Your task to perform on an android device: Search for seafood restaurants on Google Maps Image 0: 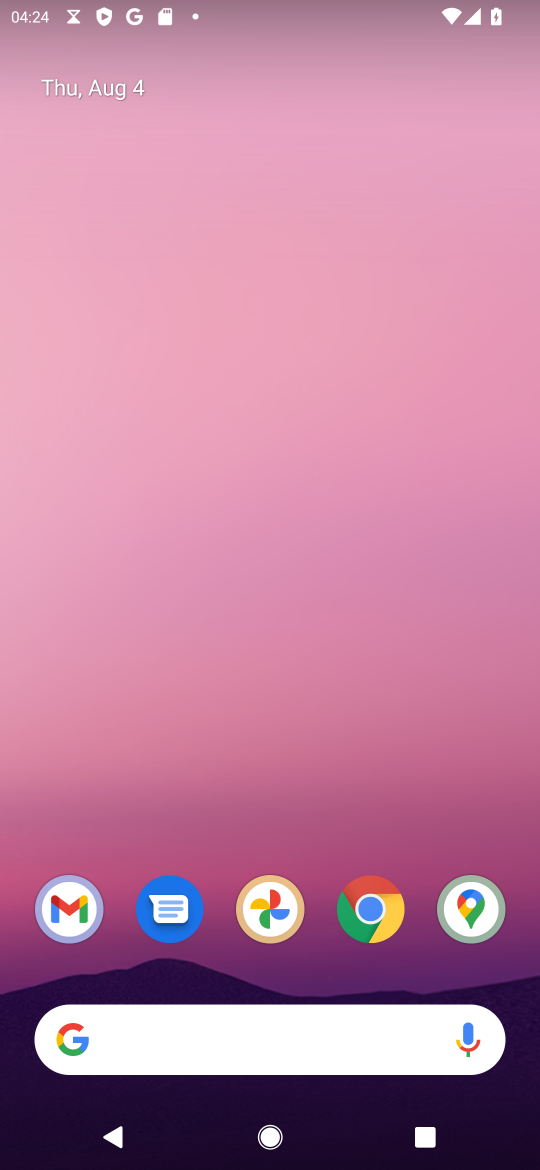
Step 0: drag from (221, 1002) to (254, 233)
Your task to perform on an android device: Search for seafood restaurants on Google Maps Image 1: 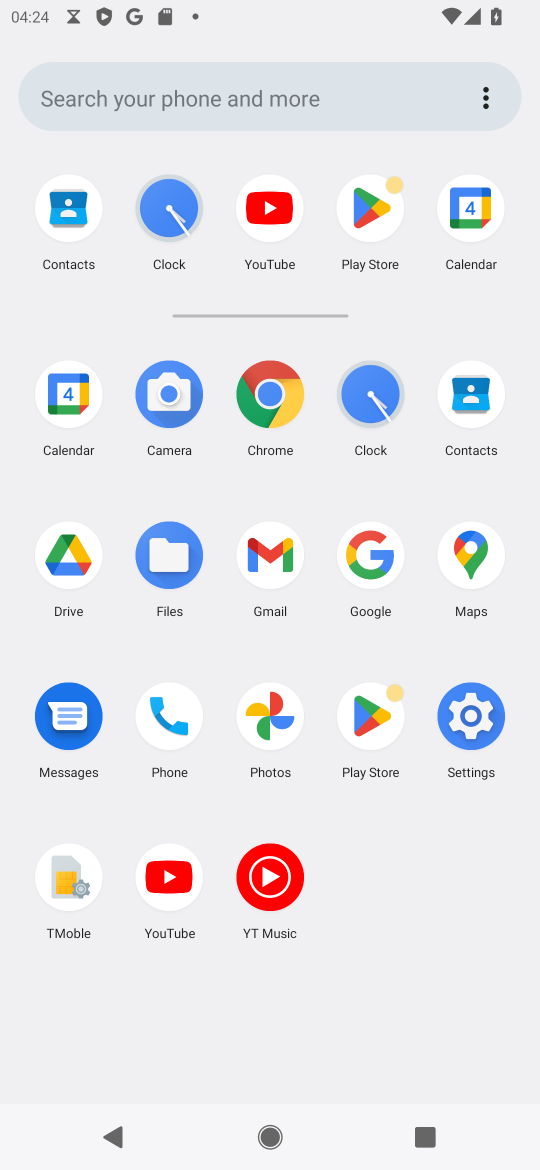
Step 1: click (462, 552)
Your task to perform on an android device: Search for seafood restaurants on Google Maps Image 2: 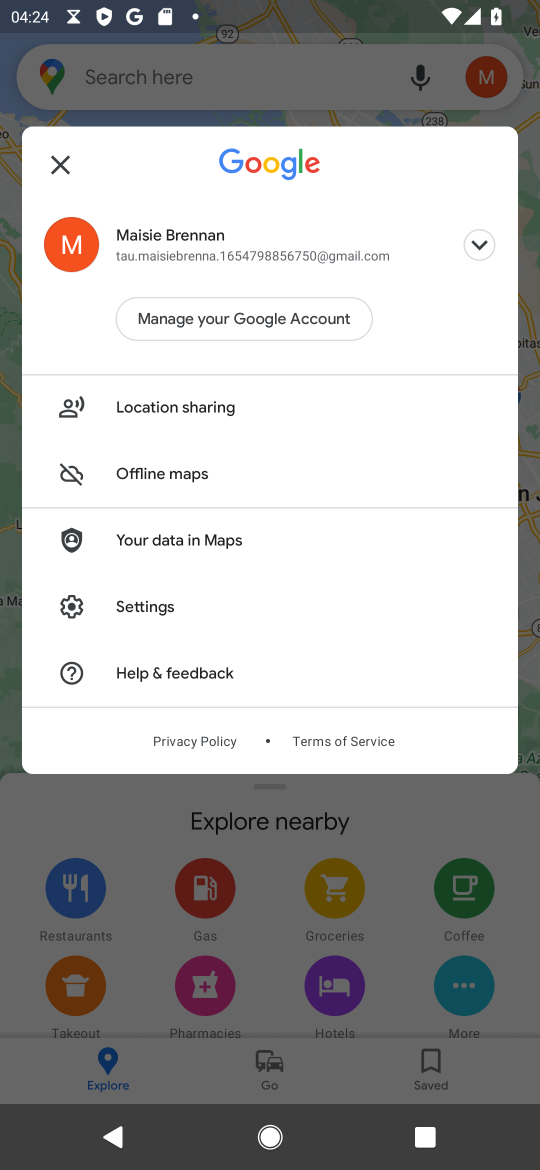
Step 2: click (333, 75)
Your task to perform on an android device: Search for seafood restaurants on Google Maps Image 3: 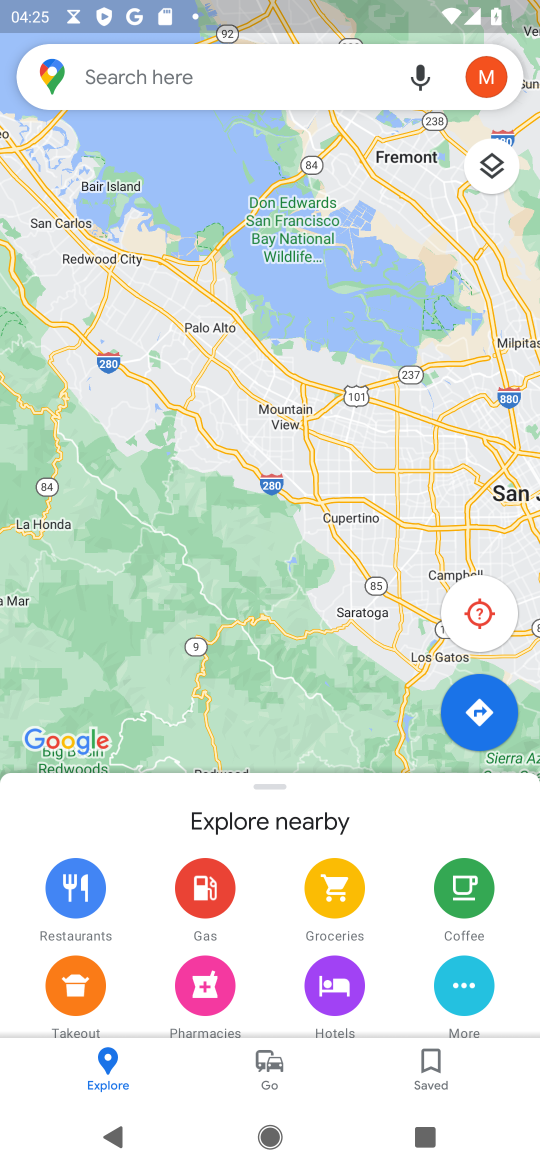
Step 3: click (114, 68)
Your task to perform on an android device: Search for seafood restaurants on Google Maps Image 4: 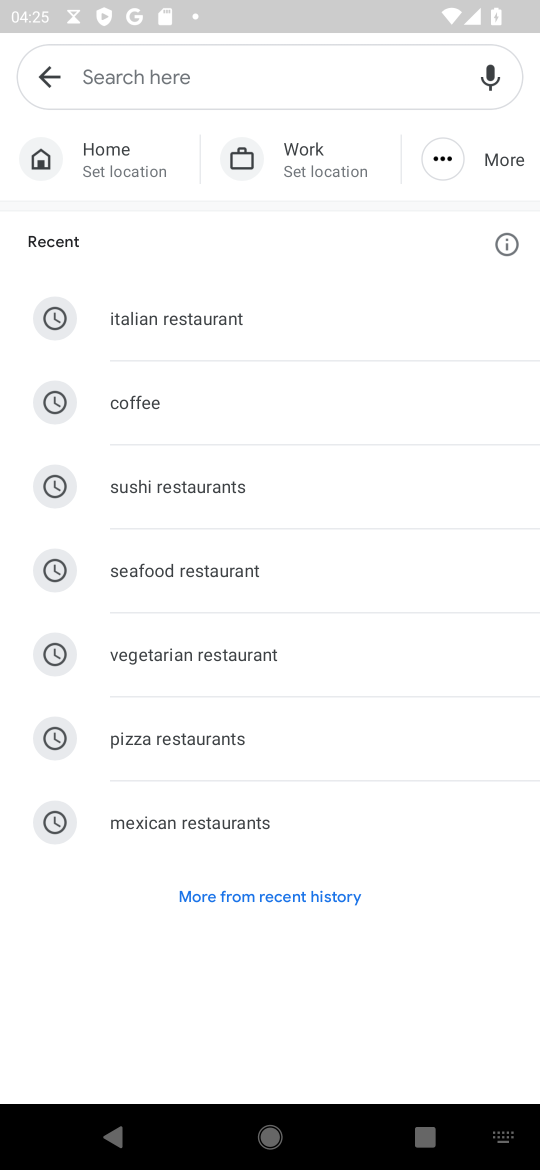
Step 4: click (261, 576)
Your task to perform on an android device: Search for seafood restaurants on Google Maps Image 5: 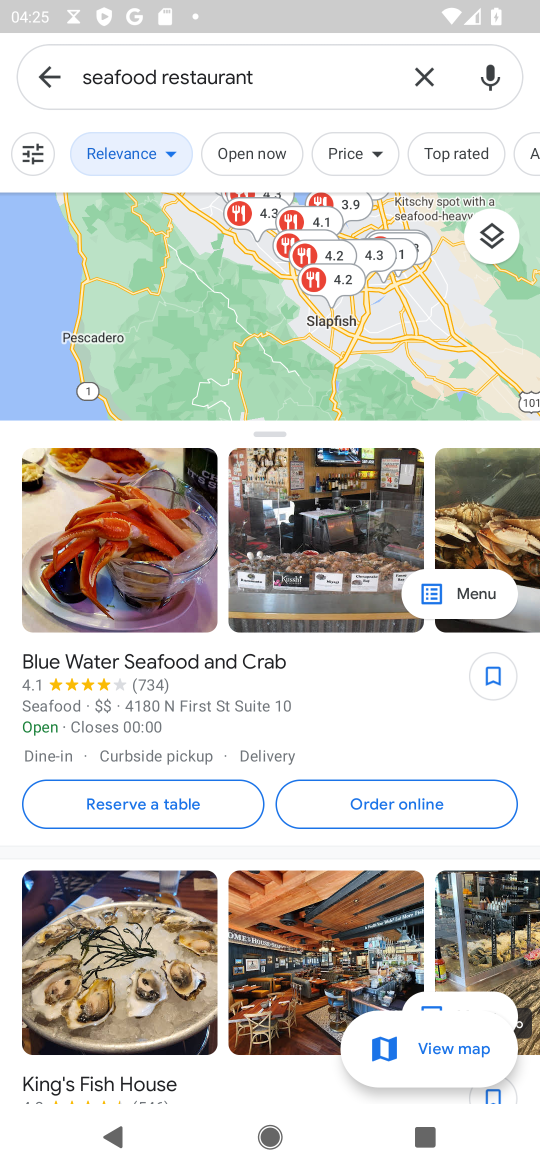
Step 5: task complete